Your task to perform on an android device: turn on javascript in the chrome app Image 0: 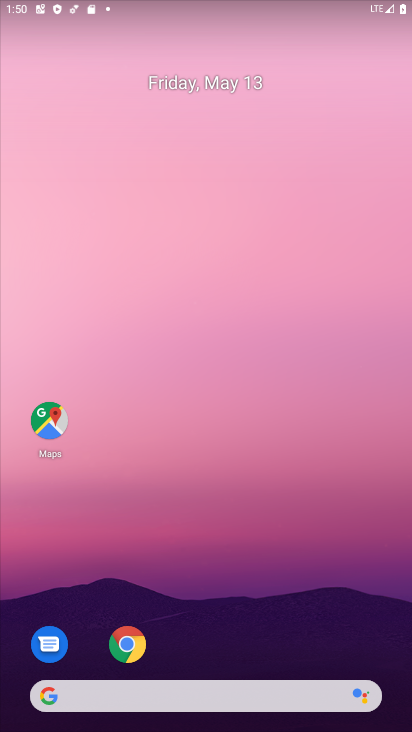
Step 0: drag from (310, 641) to (179, 99)
Your task to perform on an android device: turn on javascript in the chrome app Image 1: 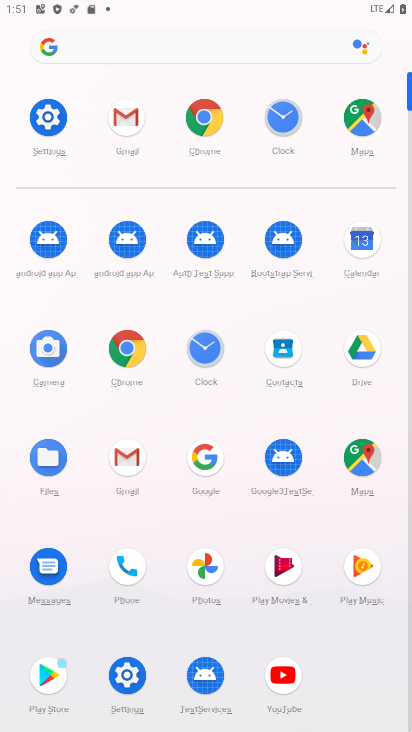
Step 1: click (128, 357)
Your task to perform on an android device: turn on javascript in the chrome app Image 2: 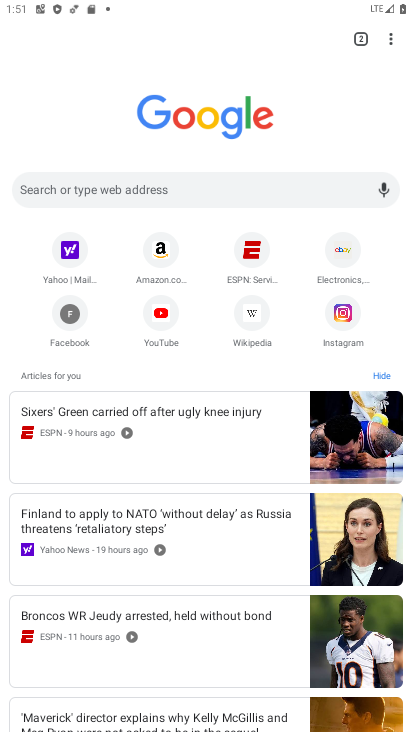
Step 2: click (387, 46)
Your task to perform on an android device: turn on javascript in the chrome app Image 3: 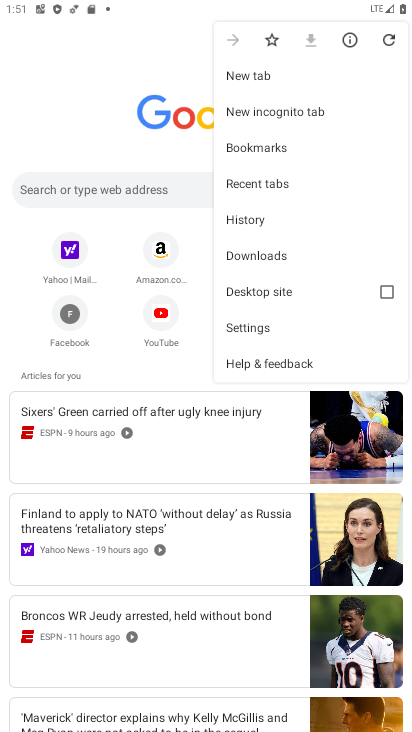
Step 3: click (250, 329)
Your task to perform on an android device: turn on javascript in the chrome app Image 4: 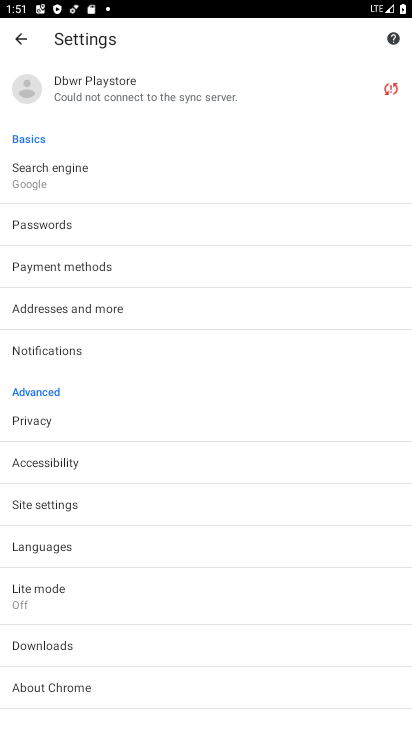
Step 4: click (136, 494)
Your task to perform on an android device: turn on javascript in the chrome app Image 5: 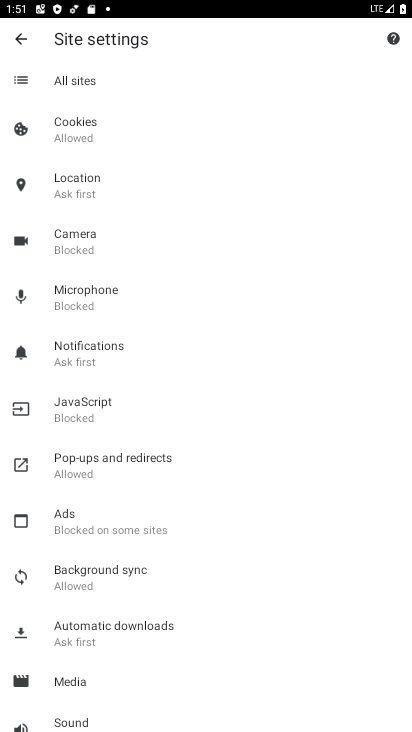
Step 5: click (69, 429)
Your task to perform on an android device: turn on javascript in the chrome app Image 6: 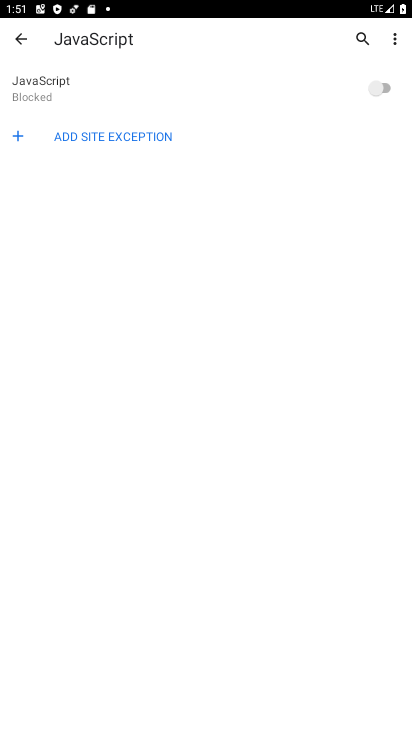
Step 6: click (357, 97)
Your task to perform on an android device: turn on javascript in the chrome app Image 7: 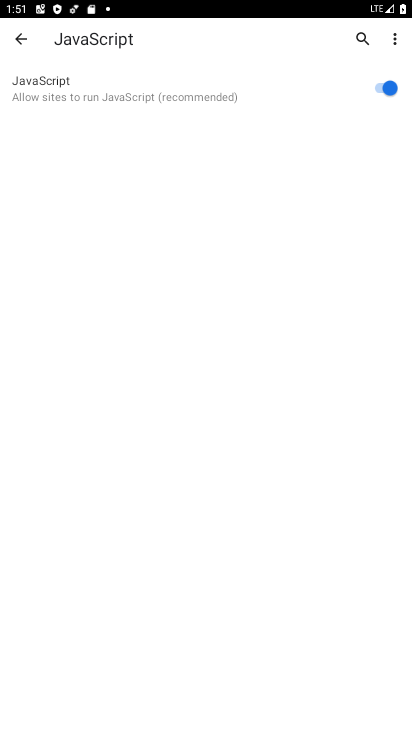
Step 7: task complete